Your task to perform on an android device: Clear the shopping cart on target. Search for "macbook pro 15 inch" on target, select the first entry, add it to the cart, then select checkout. Image 0: 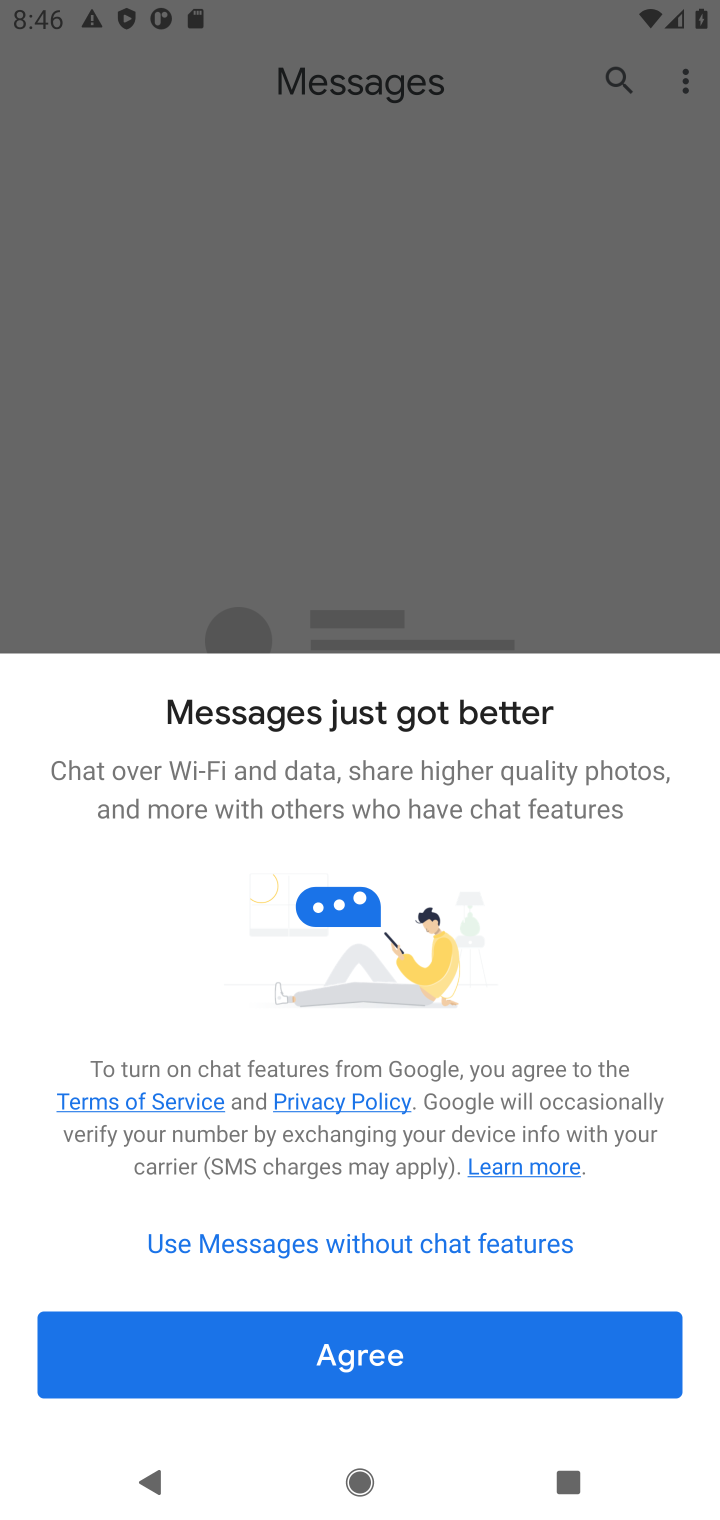
Step 0: press home button
Your task to perform on an android device: Clear the shopping cart on target. Search for "macbook pro 15 inch" on target, select the first entry, add it to the cart, then select checkout. Image 1: 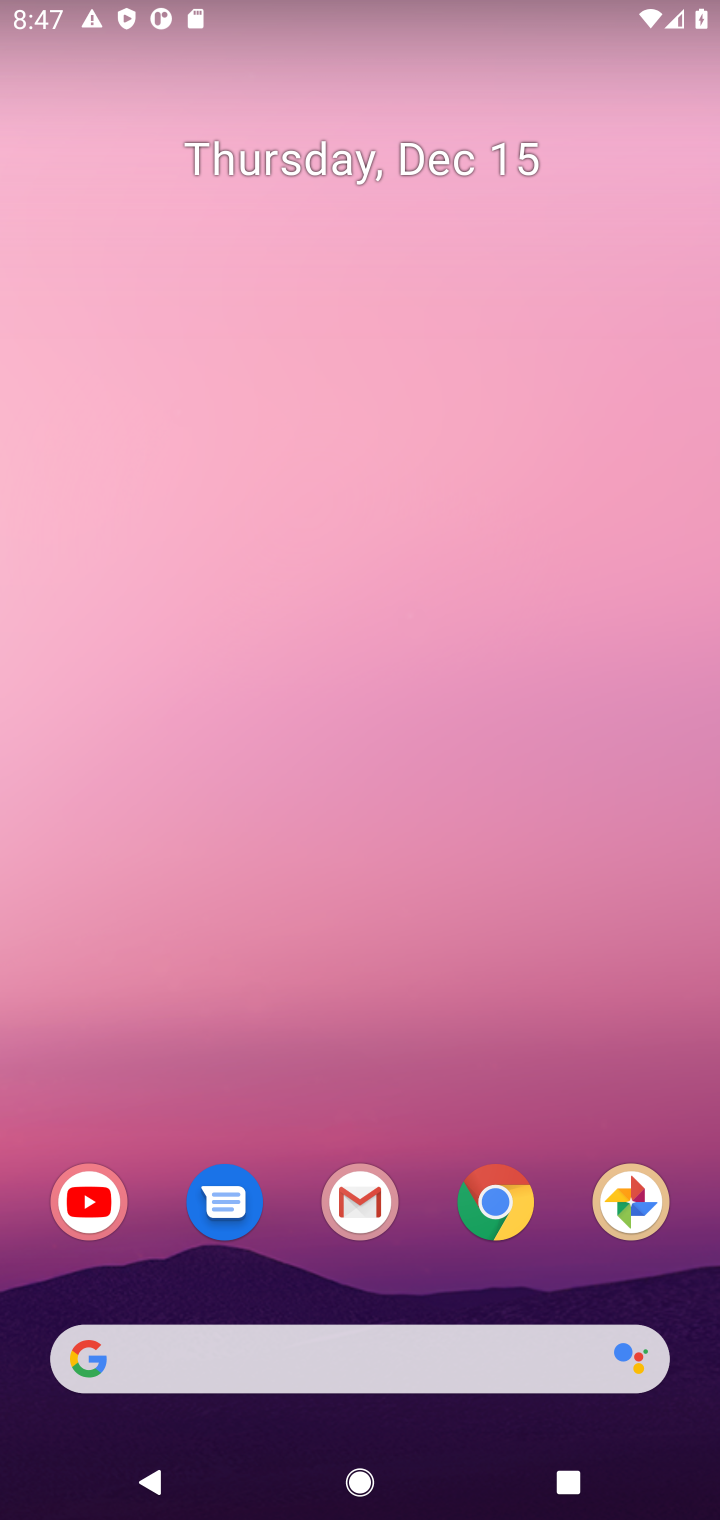
Step 1: click (489, 1210)
Your task to perform on an android device: Clear the shopping cart on target. Search for "macbook pro 15 inch" on target, select the first entry, add it to the cart, then select checkout. Image 2: 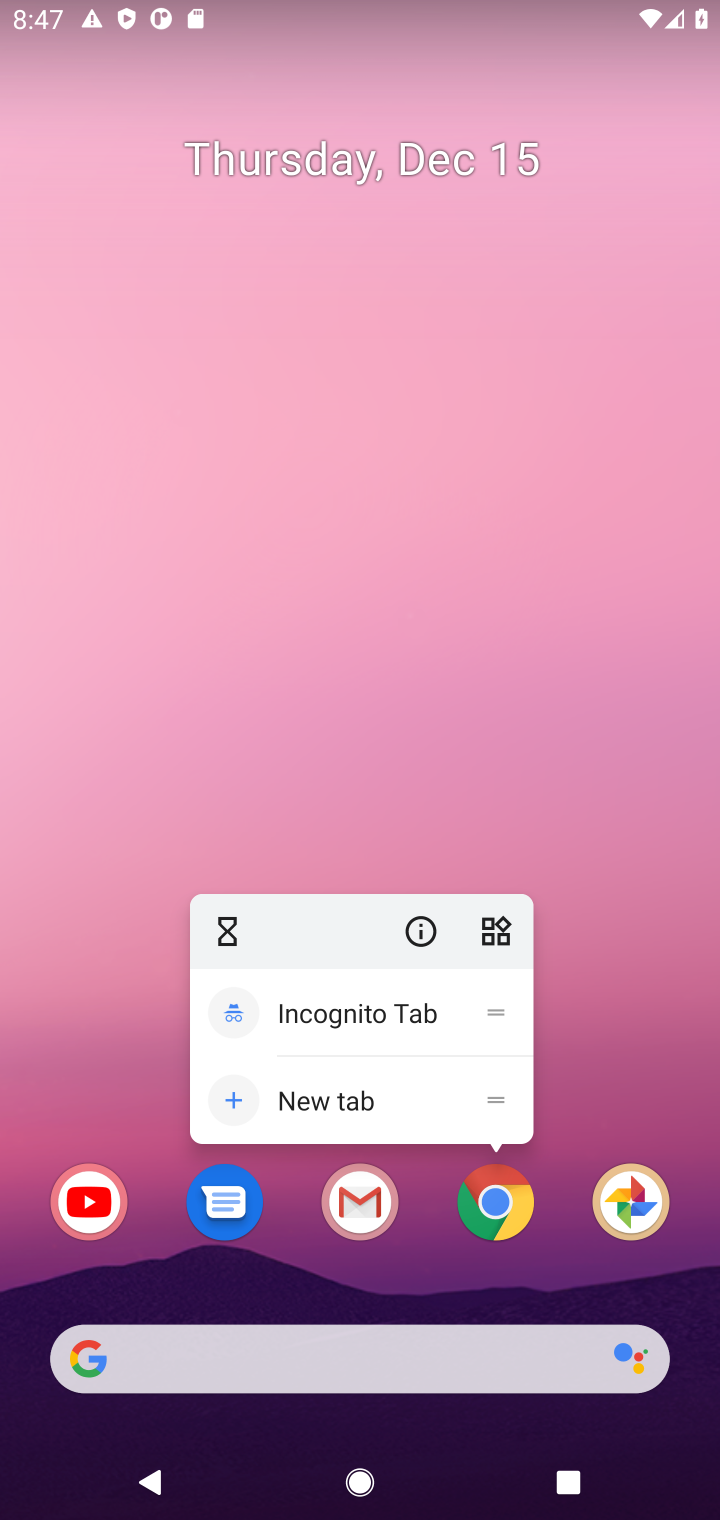
Step 2: click (503, 1200)
Your task to perform on an android device: Clear the shopping cart on target. Search for "macbook pro 15 inch" on target, select the first entry, add it to the cart, then select checkout. Image 3: 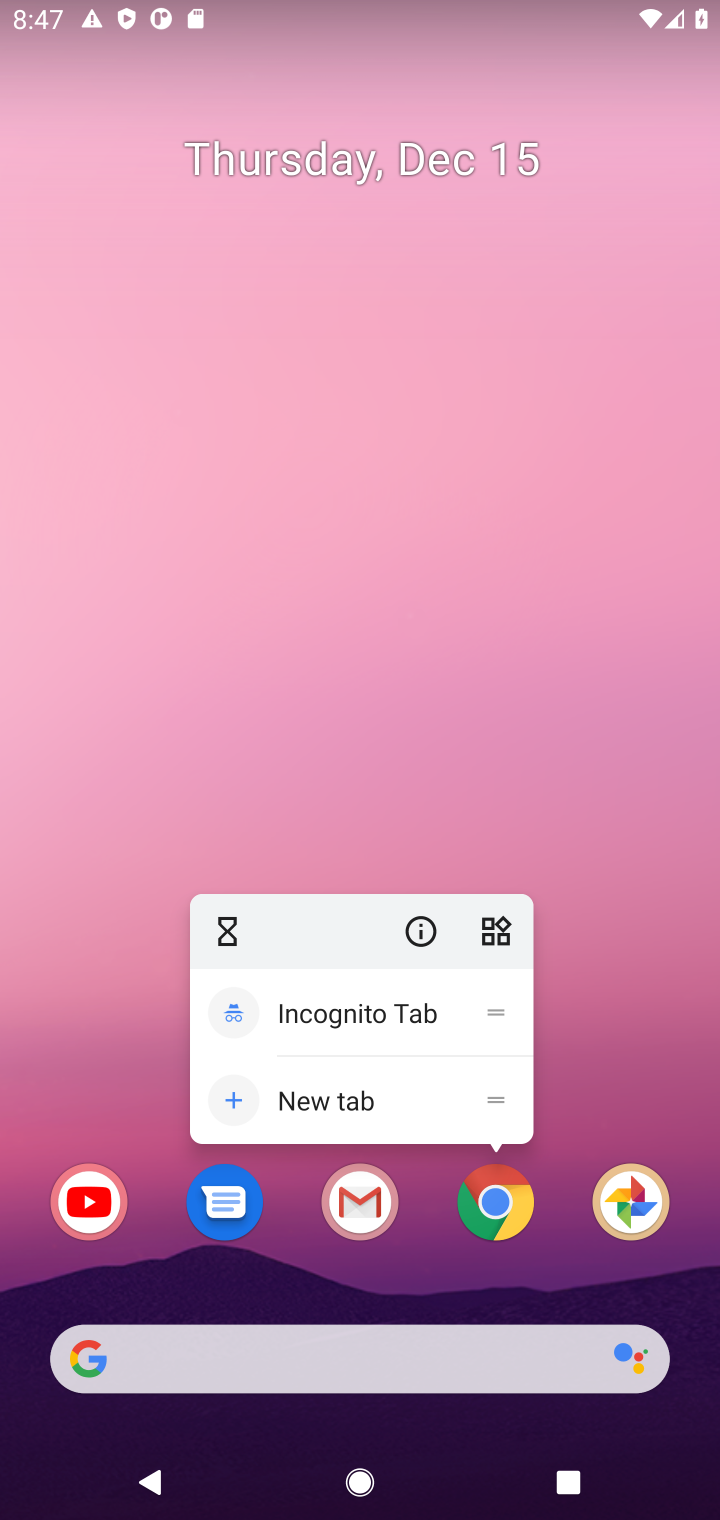
Step 3: click (496, 1202)
Your task to perform on an android device: Clear the shopping cart on target. Search for "macbook pro 15 inch" on target, select the first entry, add it to the cart, then select checkout. Image 4: 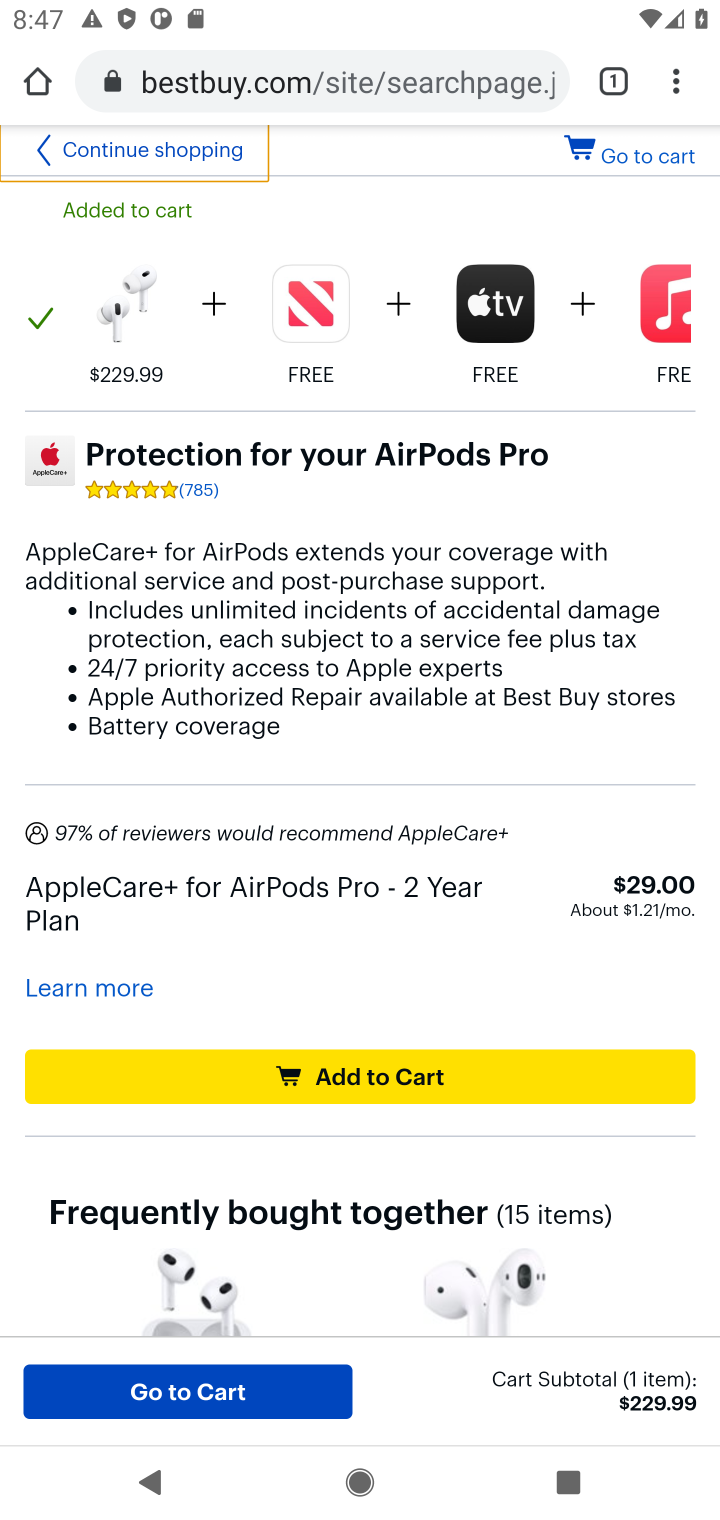
Step 4: click (206, 83)
Your task to perform on an android device: Clear the shopping cart on target. Search for "macbook pro 15 inch" on target, select the first entry, add it to the cart, then select checkout. Image 5: 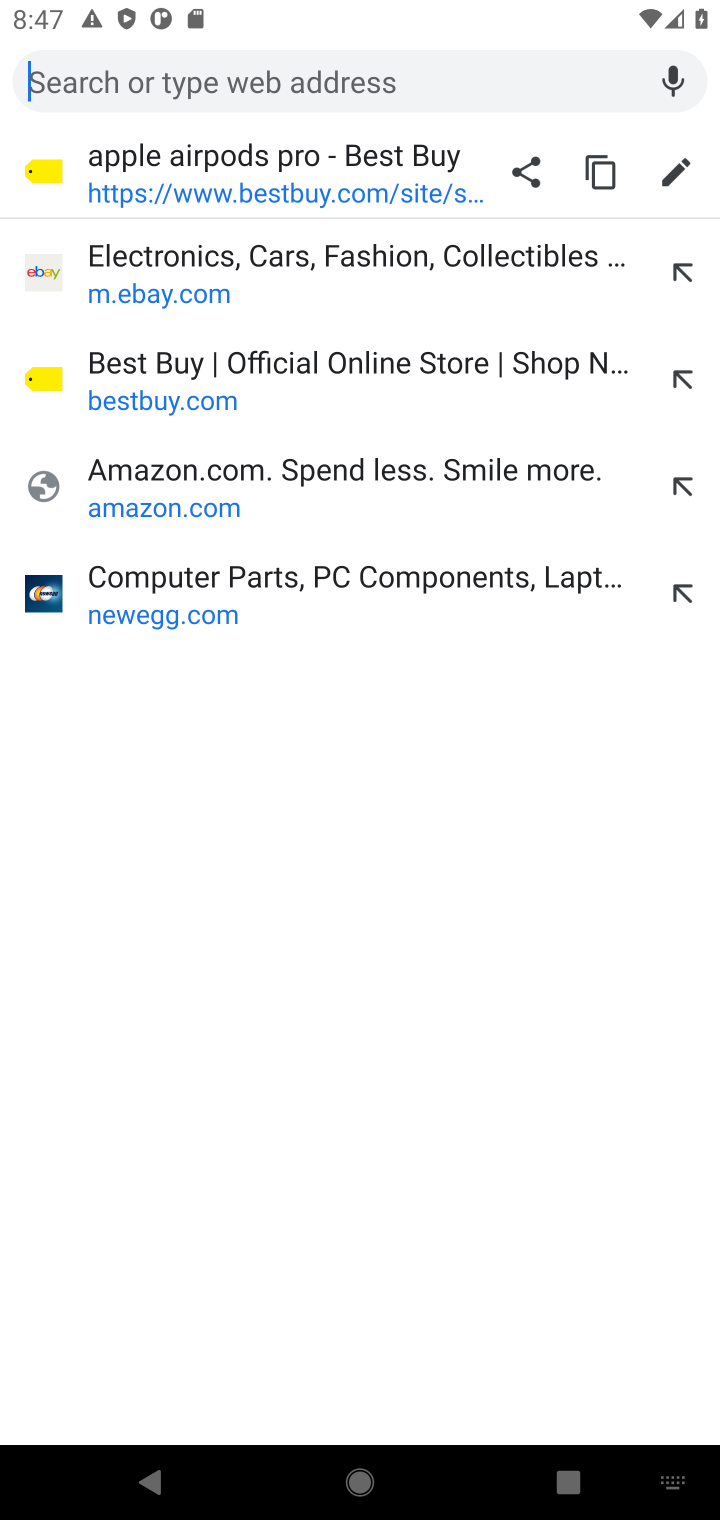
Step 5: type "target.com"
Your task to perform on an android device: Clear the shopping cart on target. Search for "macbook pro 15 inch" on target, select the first entry, add it to the cart, then select checkout. Image 6: 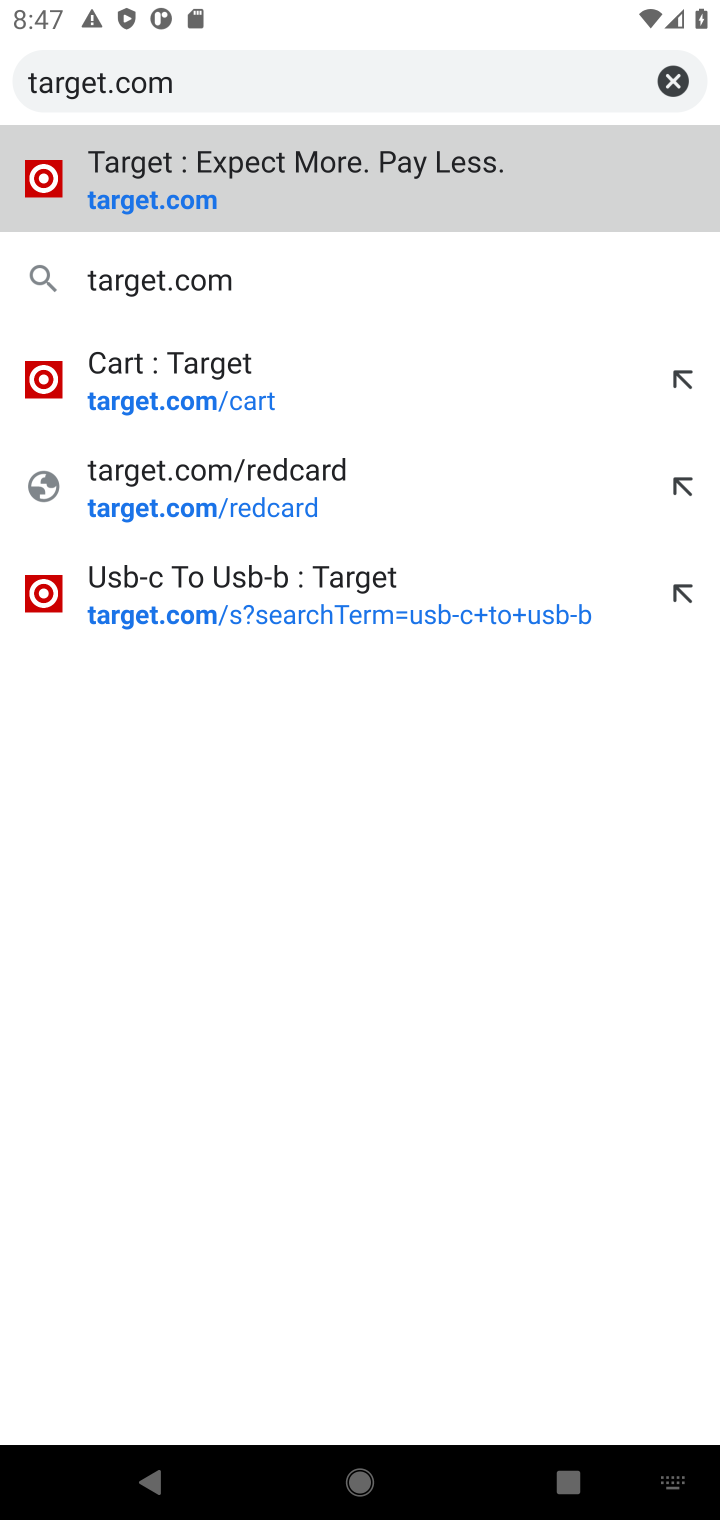
Step 6: click (178, 193)
Your task to perform on an android device: Clear the shopping cart on target. Search for "macbook pro 15 inch" on target, select the first entry, add it to the cart, then select checkout. Image 7: 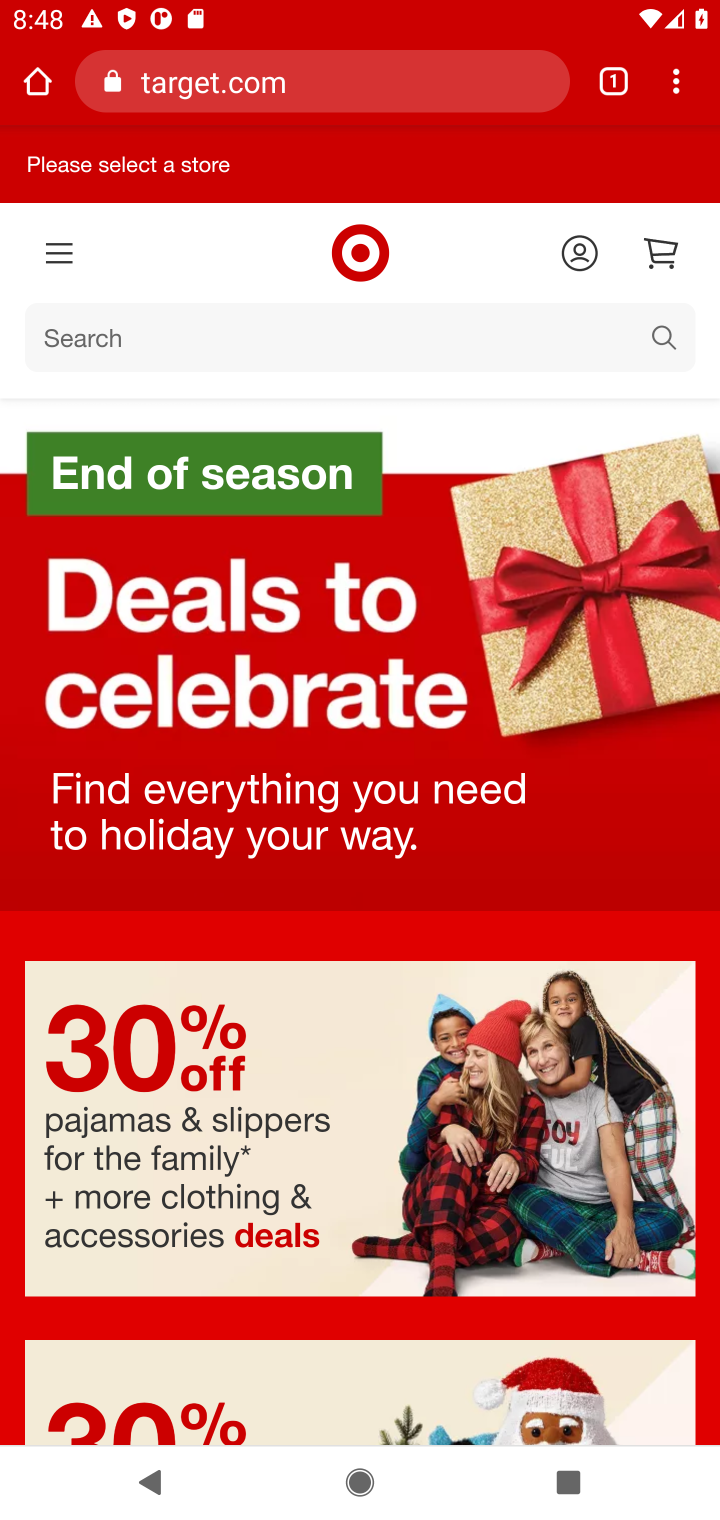
Step 7: click (653, 251)
Your task to perform on an android device: Clear the shopping cart on target. Search for "macbook pro 15 inch" on target, select the first entry, add it to the cart, then select checkout. Image 8: 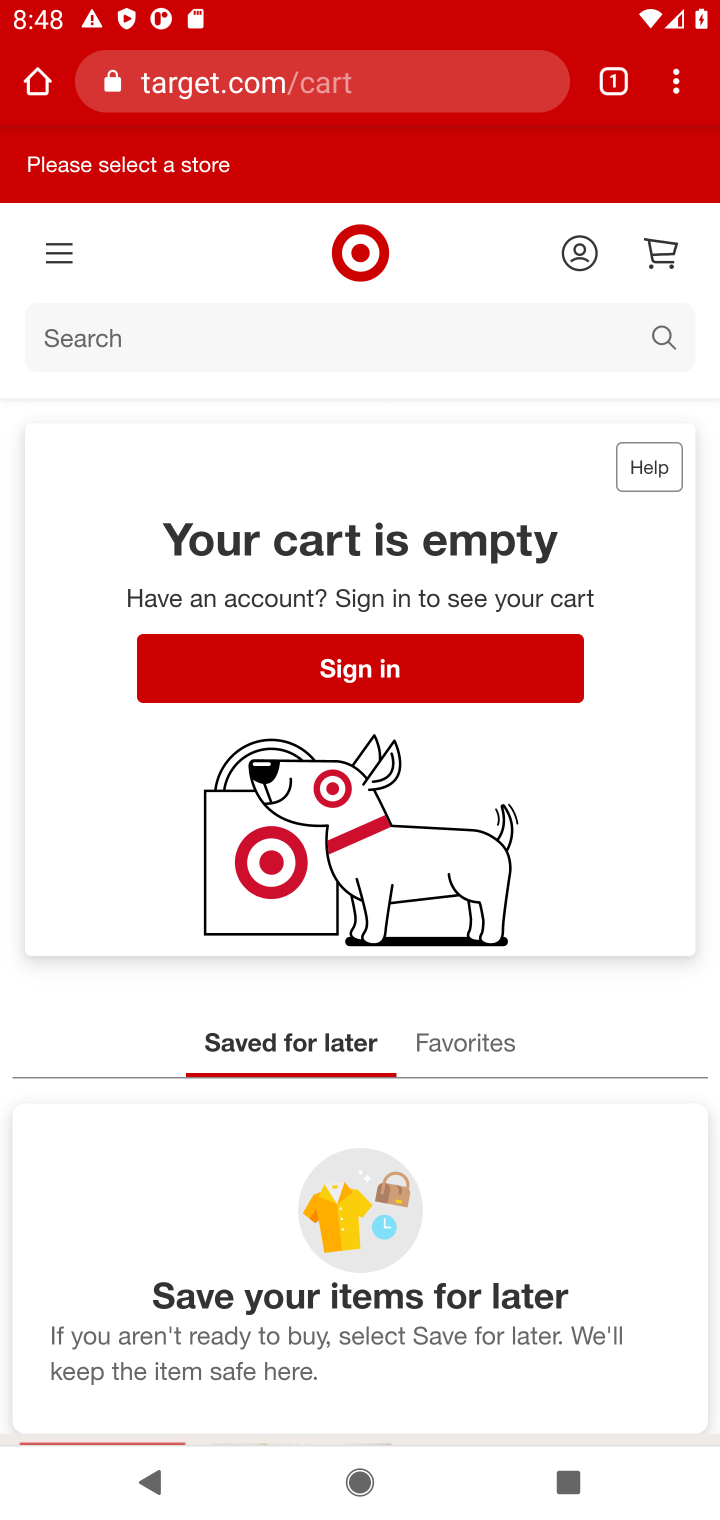
Step 8: click (72, 340)
Your task to perform on an android device: Clear the shopping cart on target. Search for "macbook pro 15 inch" on target, select the first entry, add it to the cart, then select checkout. Image 9: 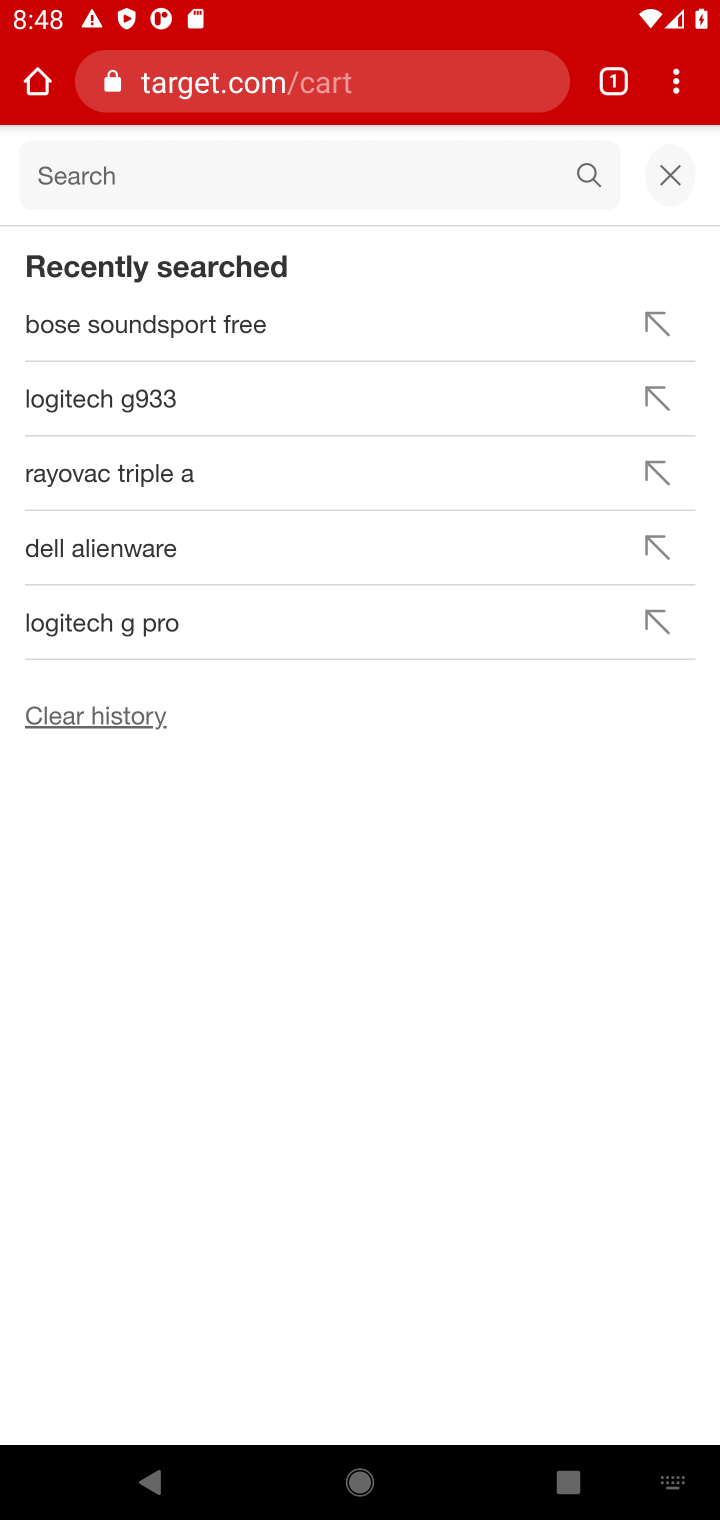
Step 9: type "macbook pro 15 inch"
Your task to perform on an android device: Clear the shopping cart on target. Search for "macbook pro 15 inch" on target, select the first entry, add it to the cart, then select checkout. Image 10: 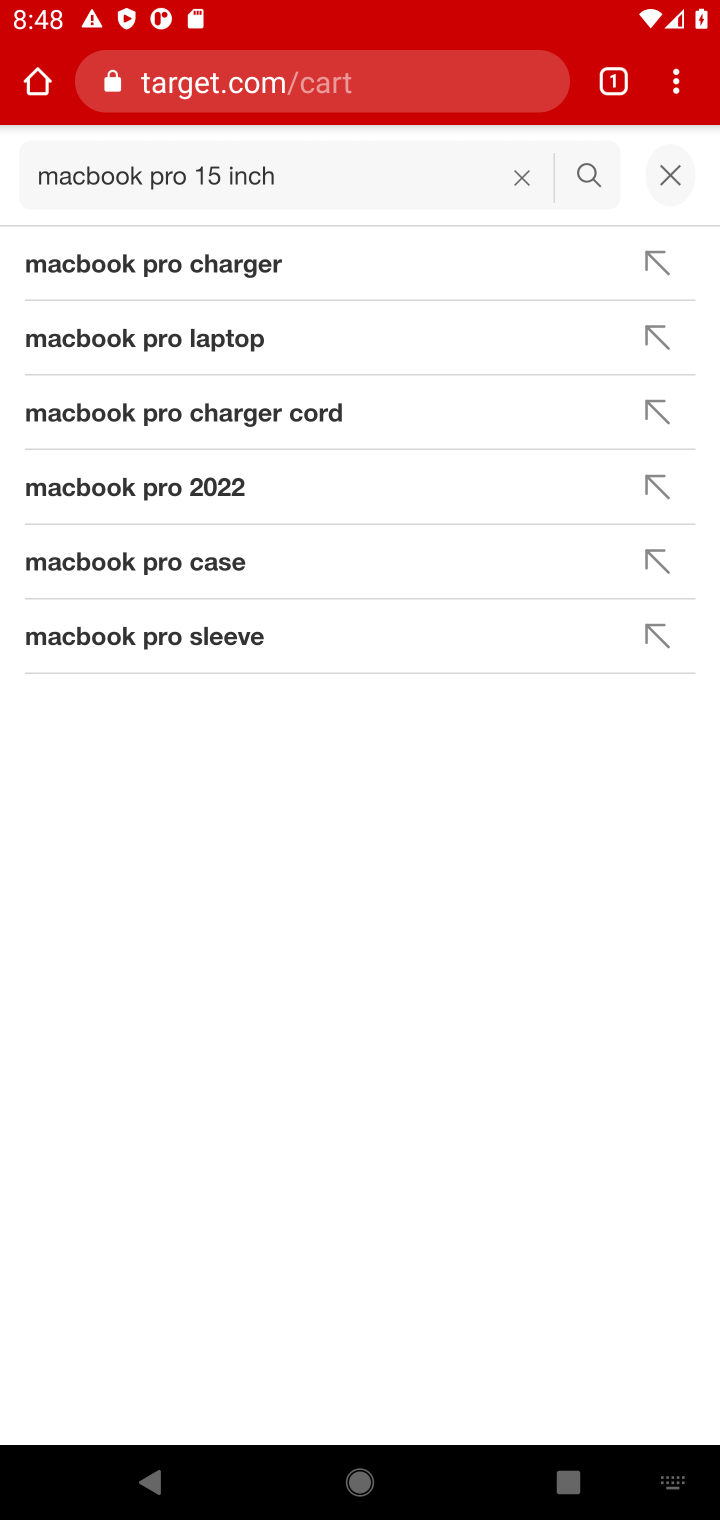
Step 10: click (581, 180)
Your task to perform on an android device: Clear the shopping cart on target. Search for "macbook pro 15 inch" on target, select the first entry, add it to the cart, then select checkout. Image 11: 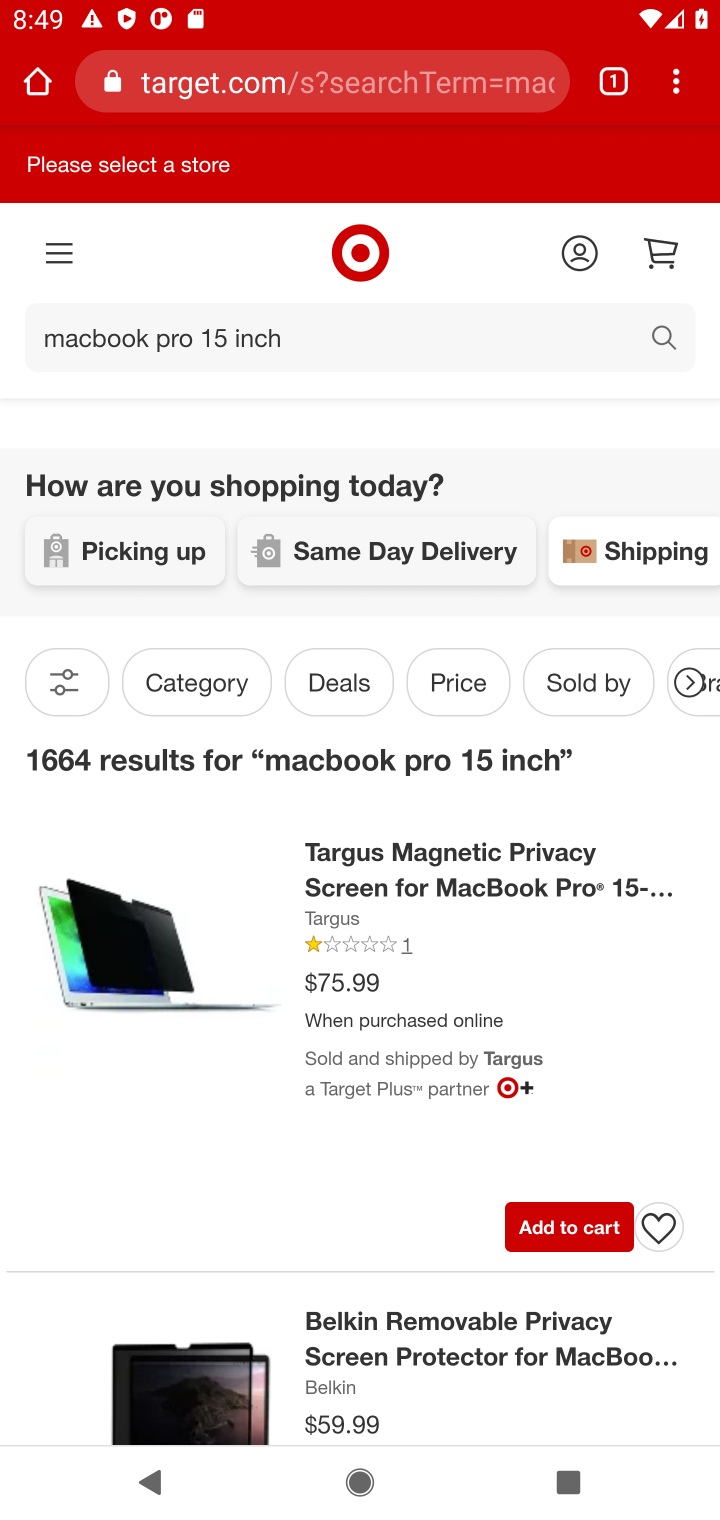
Step 11: click (387, 882)
Your task to perform on an android device: Clear the shopping cart on target. Search for "macbook pro 15 inch" on target, select the first entry, add it to the cart, then select checkout. Image 12: 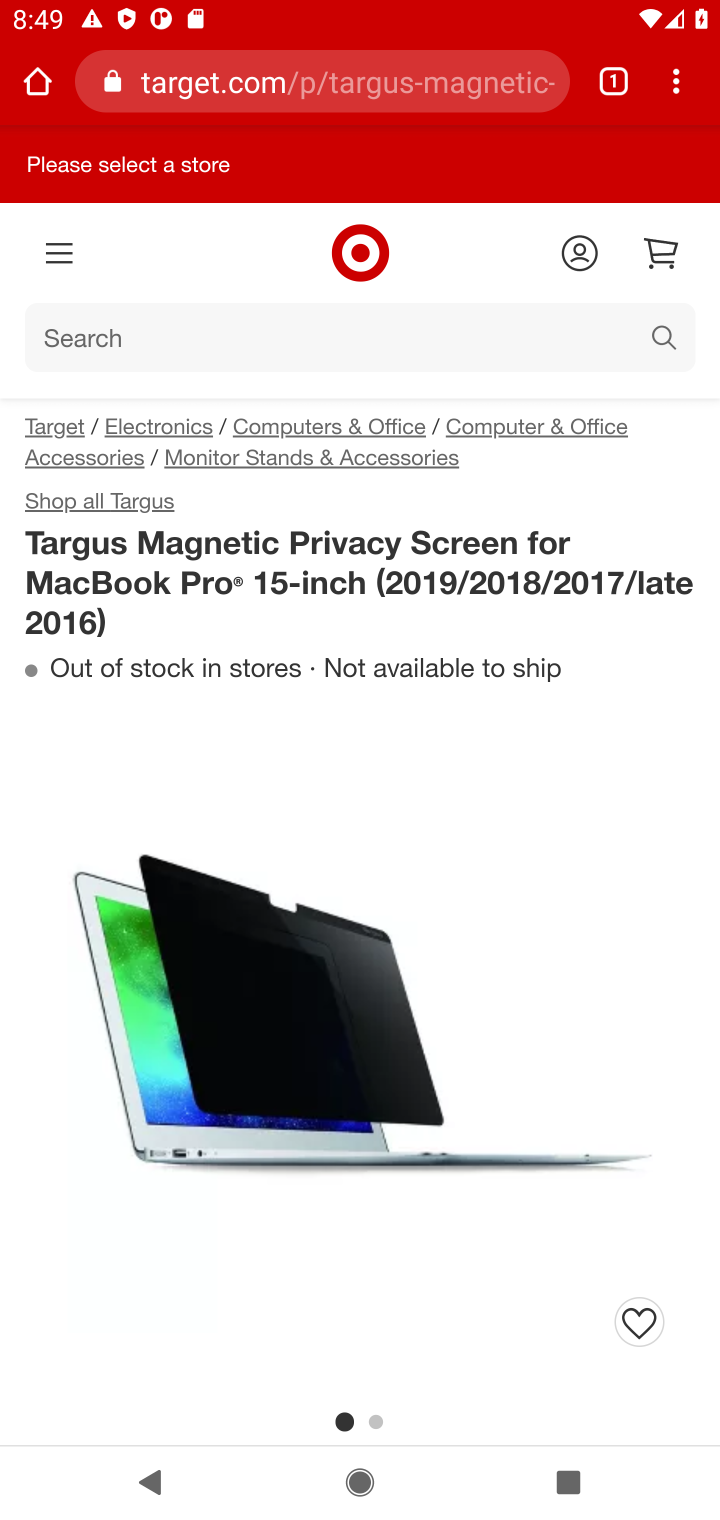
Step 12: drag from (332, 939) to (321, 563)
Your task to perform on an android device: Clear the shopping cart on target. Search for "macbook pro 15 inch" on target, select the first entry, add it to the cart, then select checkout. Image 13: 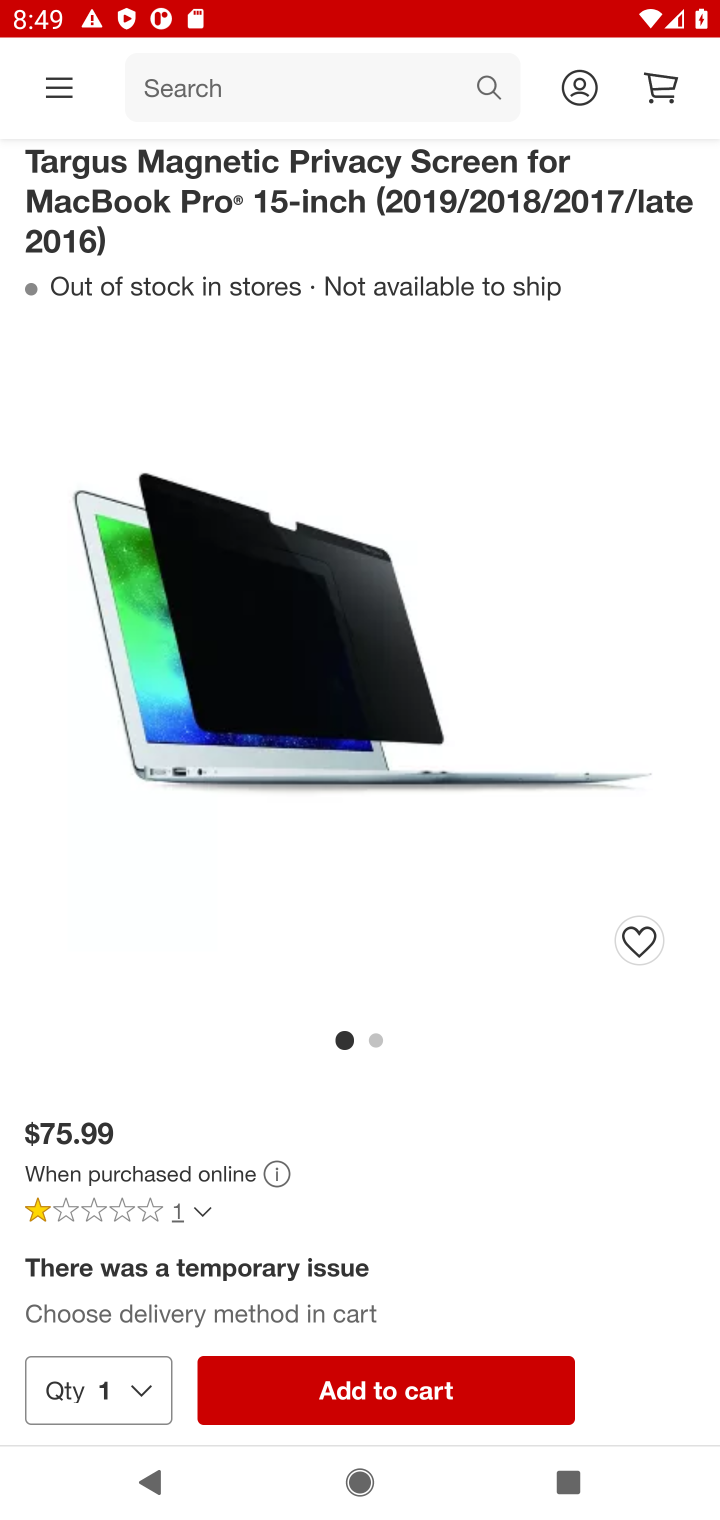
Step 13: click (334, 1390)
Your task to perform on an android device: Clear the shopping cart on target. Search for "macbook pro 15 inch" on target, select the first entry, add it to the cart, then select checkout. Image 14: 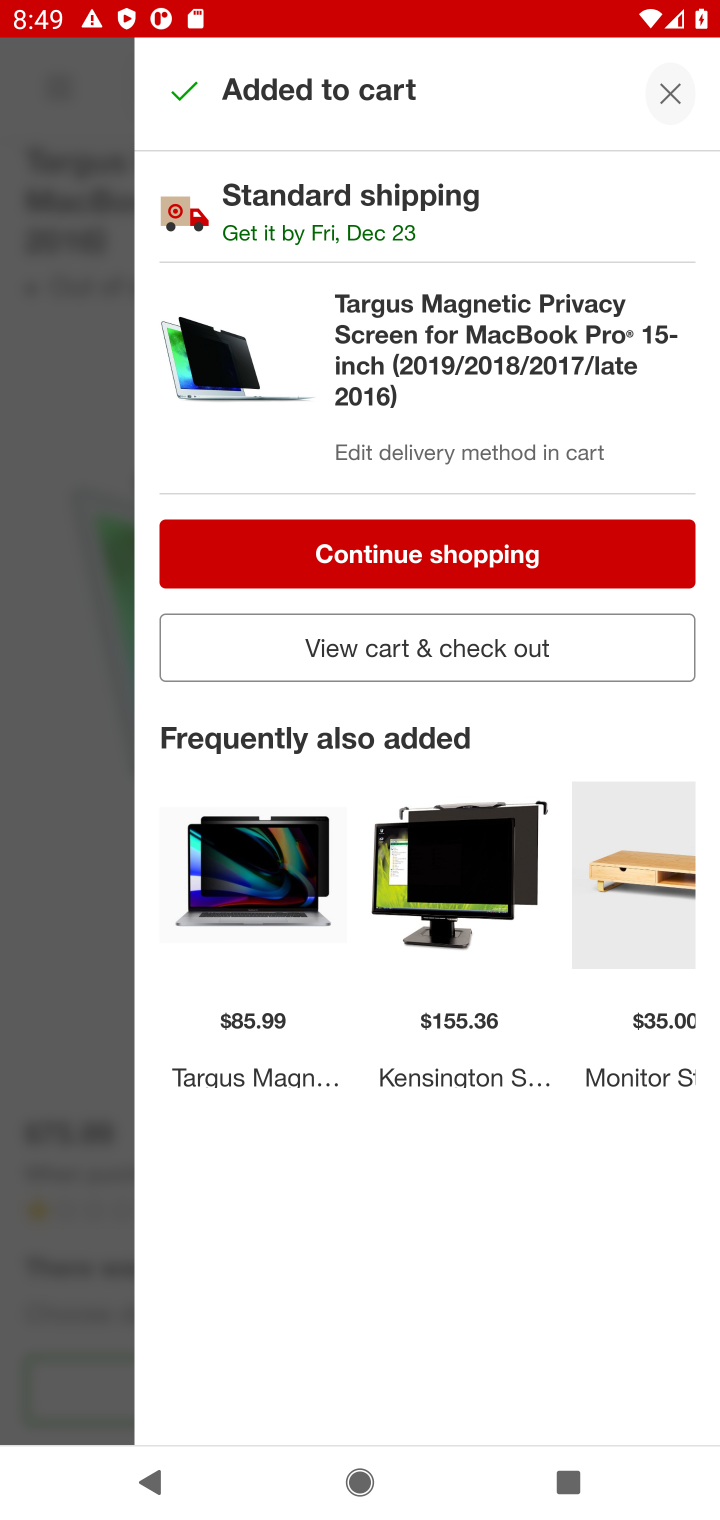
Step 14: click (448, 641)
Your task to perform on an android device: Clear the shopping cart on target. Search for "macbook pro 15 inch" on target, select the first entry, add it to the cart, then select checkout. Image 15: 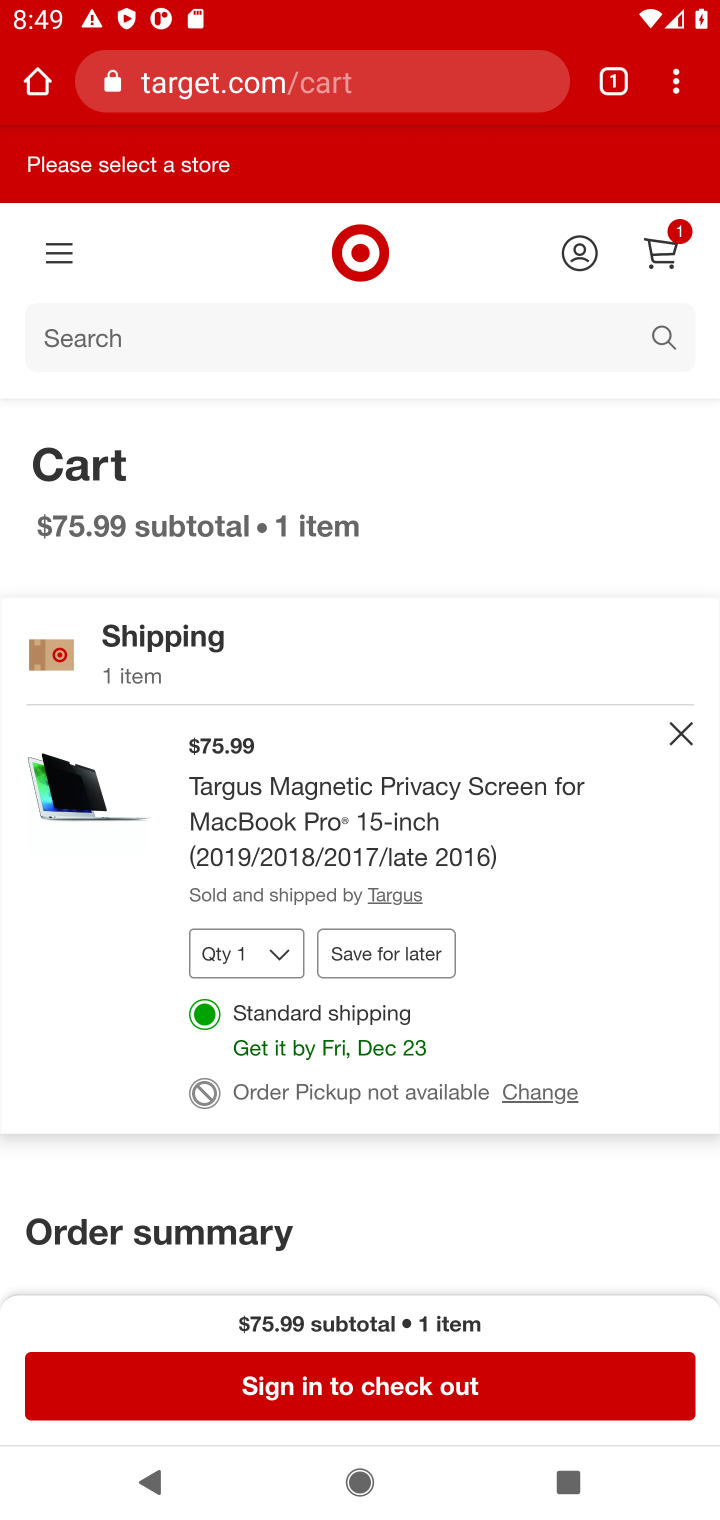
Step 15: click (244, 1382)
Your task to perform on an android device: Clear the shopping cart on target. Search for "macbook pro 15 inch" on target, select the first entry, add it to the cart, then select checkout. Image 16: 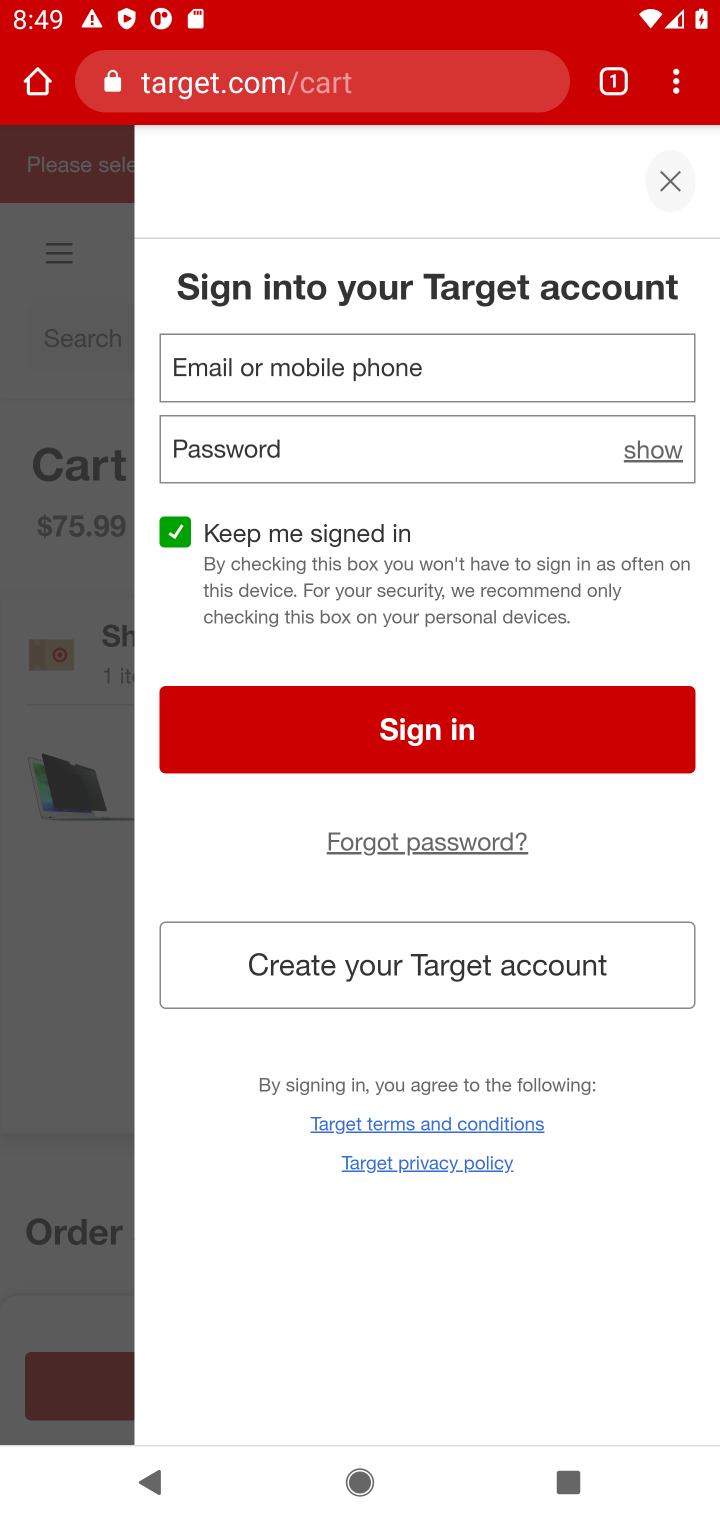
Step 16: task complete